Your task to perform on an android device: Open Google Chrome and open the bookmarks view Image 0: 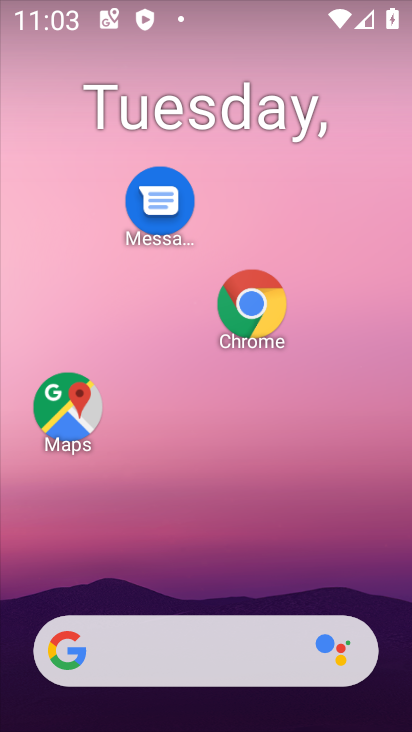
Step 0: drag from (282, 568) to (304, 195)
Your task to perform on an android device: Open Google Chrome and open the bookmarks view Image 1: 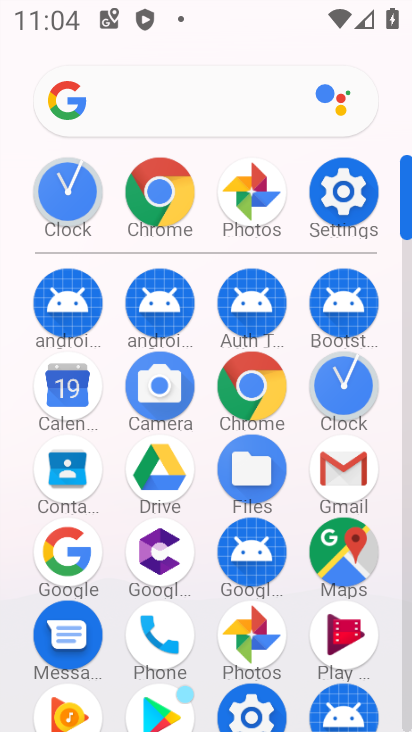
Step 1: click (255, 369)
Your task to perform on an android device: Open Google Chrome and open the bookmarks view Image 2: 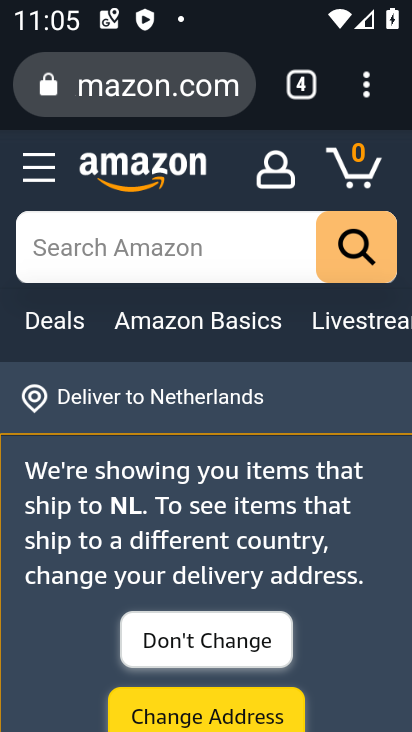
Step 2: click (371, 74)
Your task to perform on an android device: Open Google Chrome and open the bookmarks view Image 3: 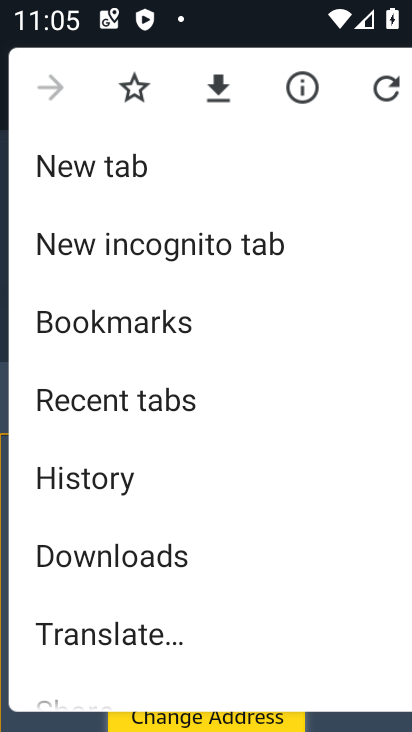
Step 3: click (178, 316)
Your task to perform on an android device: Open Google Chrome and open the bookmarks view Image 4: 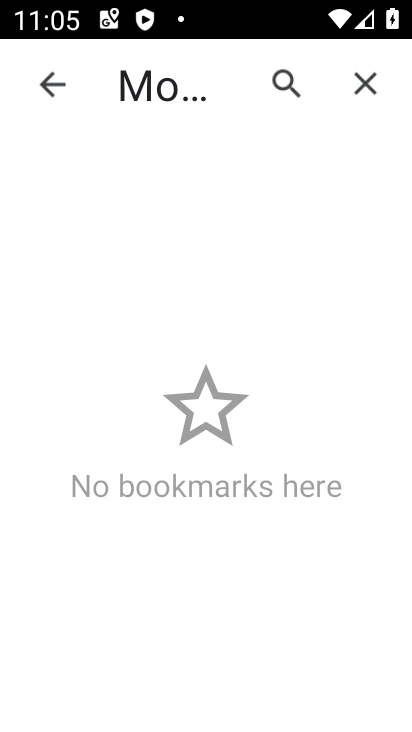
Step 4: task complete